Your task to perform on an android device: change notification settings in the gmail app Image 0: 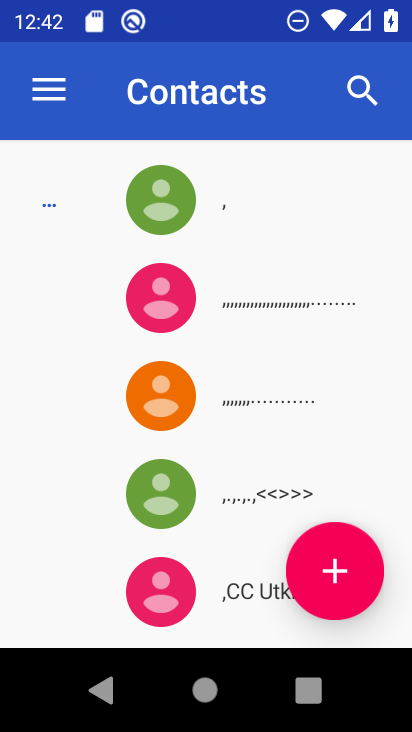
Step 0: press home button
Your task to perform on an android device: change notification settings in the gmail app Image 1: 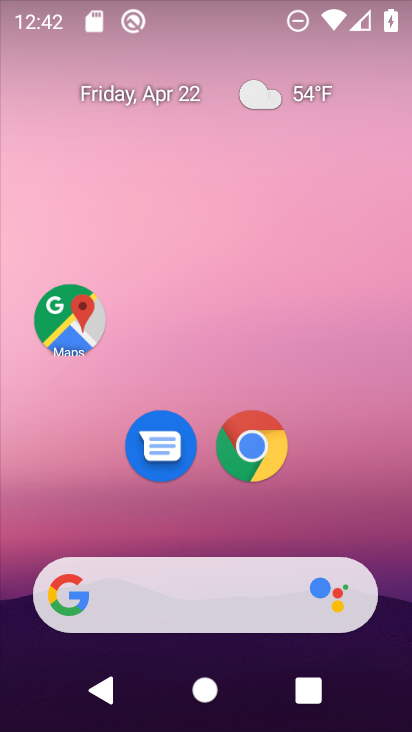
Step 1: drag from (357, 502) to (338, 216)
Your task to perform on an android device: change notification settings in the gmail app Image 2: 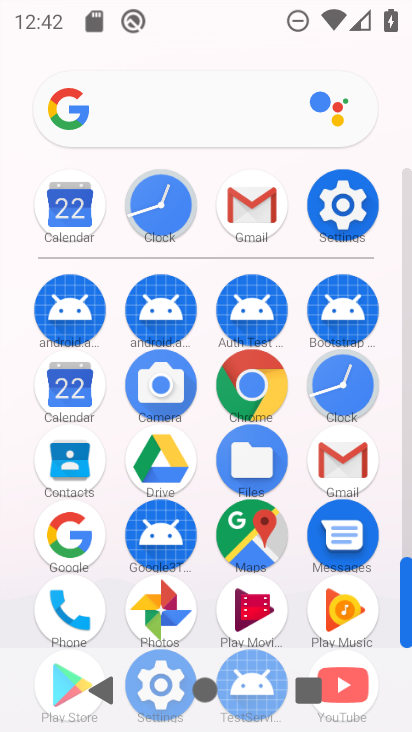
Step 2: click (257, 198)
Your task to perform on an android device: change notification settings in the gmail app Image 3: 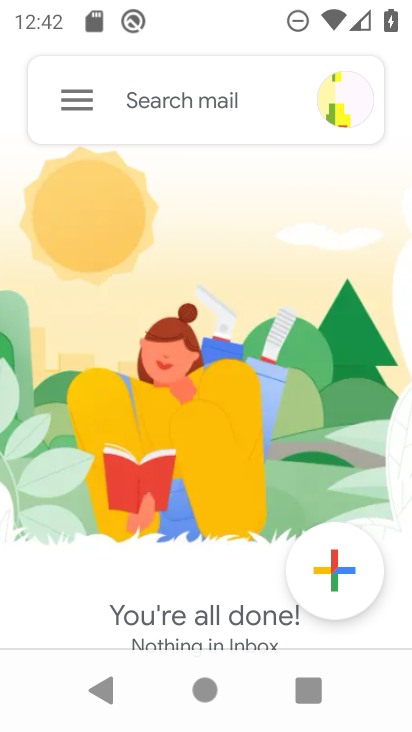
Step 3: click (76, 109)
Your task to perform on an android device: change notification settings in the gmail app Image 4: 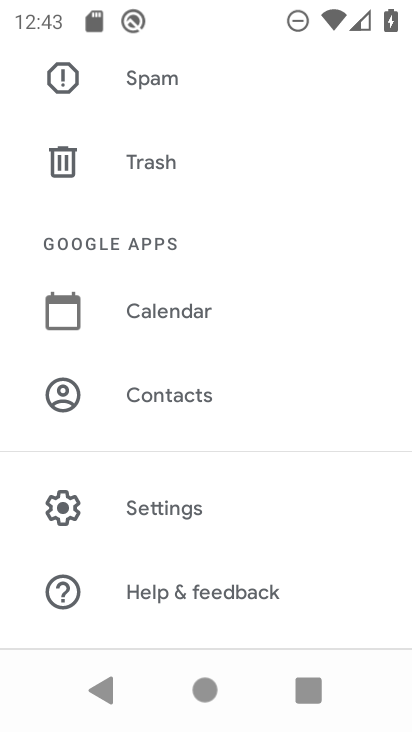
Step 4: click (180, 502)
Your task to perform on an android device: change notification settings in the gmail app Image 5: 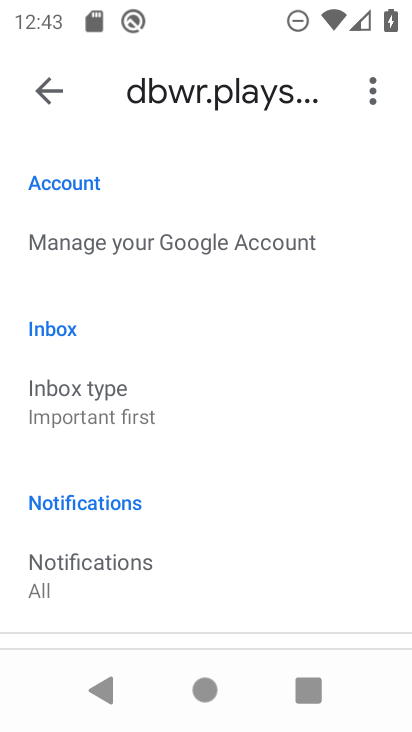
Step 5: drag from (222, 596) to (220, 325)
Your task to perform on an android device: change notification settings in the gmail app Image 6: 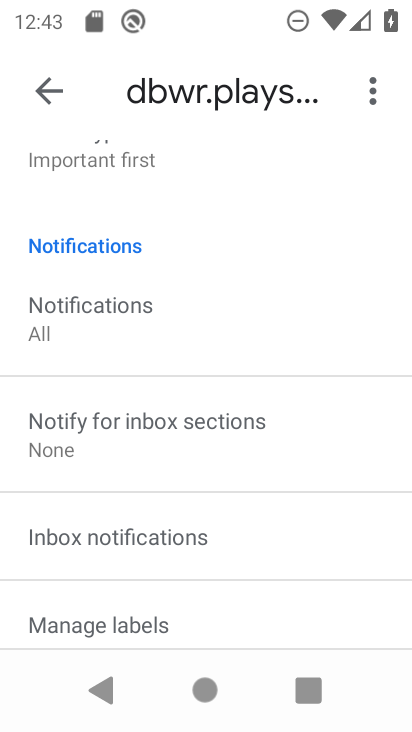
Step 6: drag from (275, 567) to (268, 223)
Your task to perform on an android device: change notification settings in the gmail app Image 7: 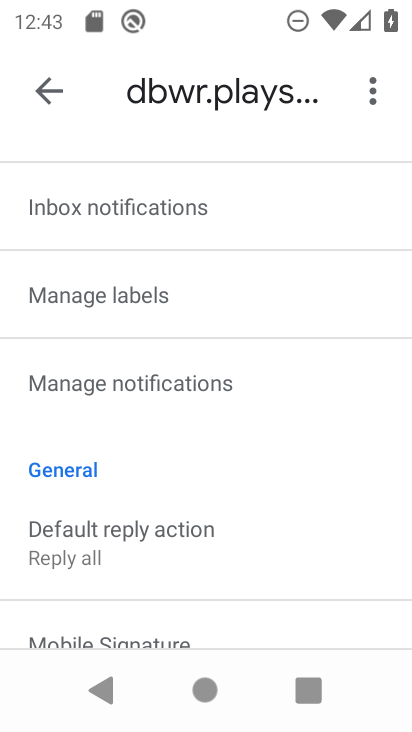
Step 7: click (291, 368)
Your task to perform on an android device: change notification settings in the gmail app Image 8: 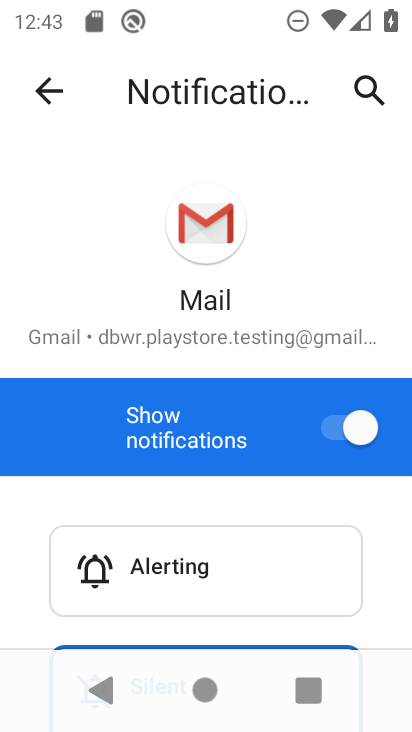
Step 8: drag from (376, 637) to (257, 216)
Your task to perform on an android device: change notification settings in the gmail app Image 9: 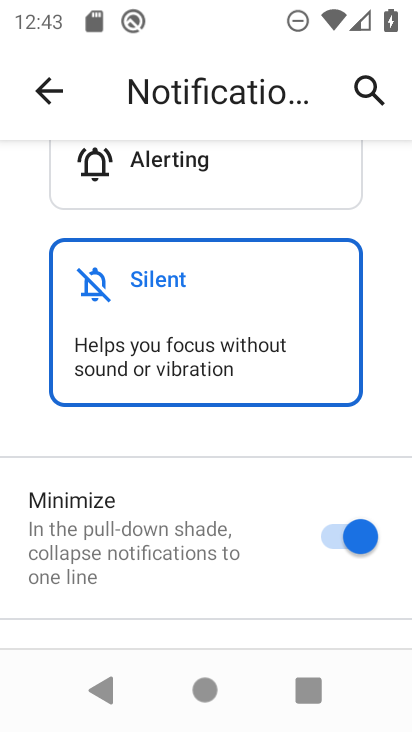
Step 9: click (251, 189)
Your task to perform on an android device: change notification settings in the gmail app Image 10: 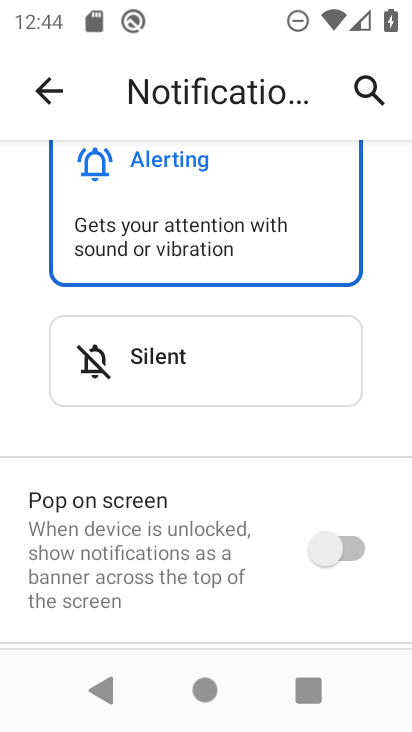
Step 10: click (360, 557)
Your task to perform on an android device: change notification settings in the gmail app Image 11: 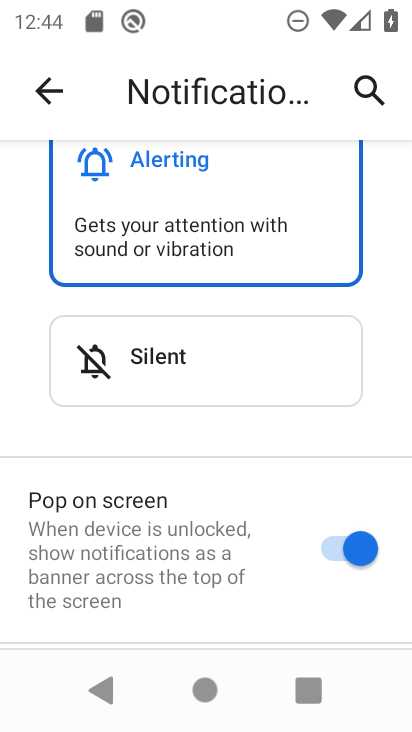
Step 11: task complete